Your task to perform on an android device: View the shopping cart on bestbuy. Add "corsair k70" to the cart on bestbuy Image 0: 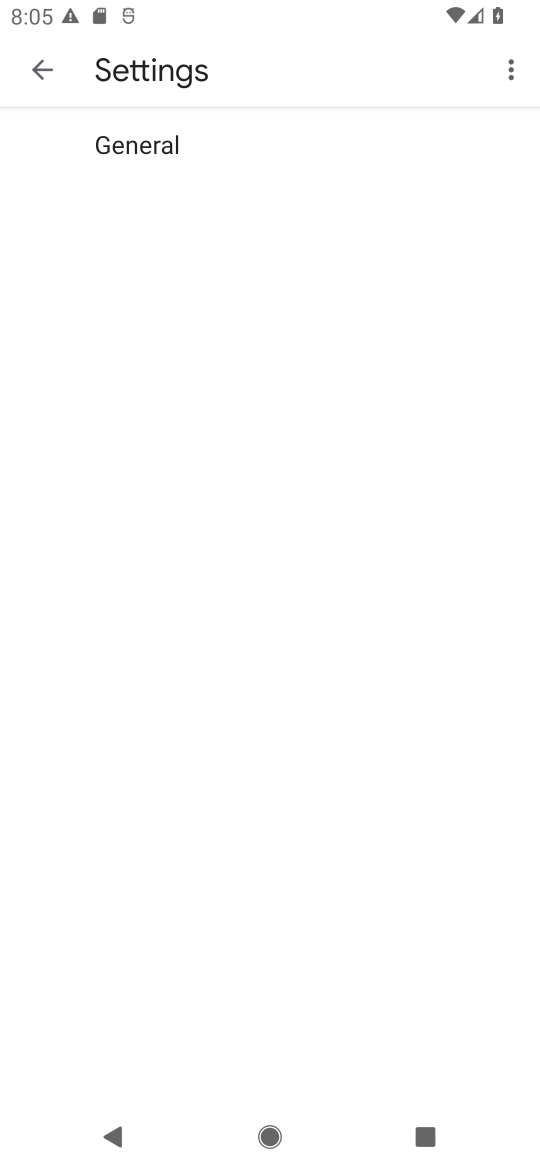
Step 0: press home button
Your task to perform on an android device: View the shopping cart on bestbuy. Add "corsair k70" to the cart on bestbuy Image 1: 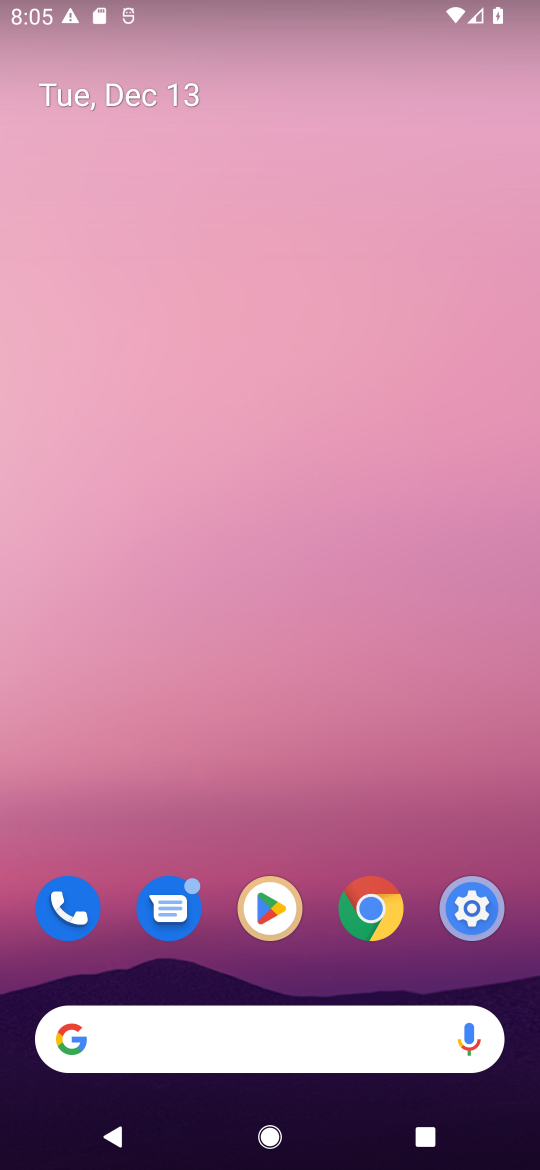
Step 1: click (117, 1044)
Your task to perform on an android device: View the shopping cart on bestbuy. Add "corsair k70" to the cart on bestbuy Image 2: 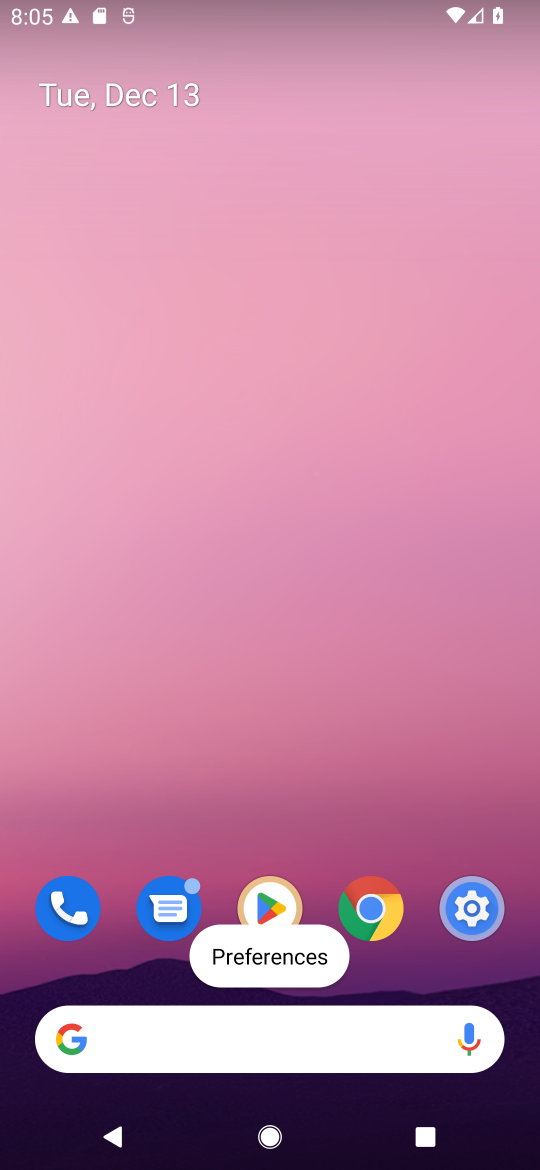
Step 2: click (115, 1029)
Your task to perform on an android device: View the shopping cart on bestbuy. Add "corsair k70" to the cart on bestbuy Image 3: 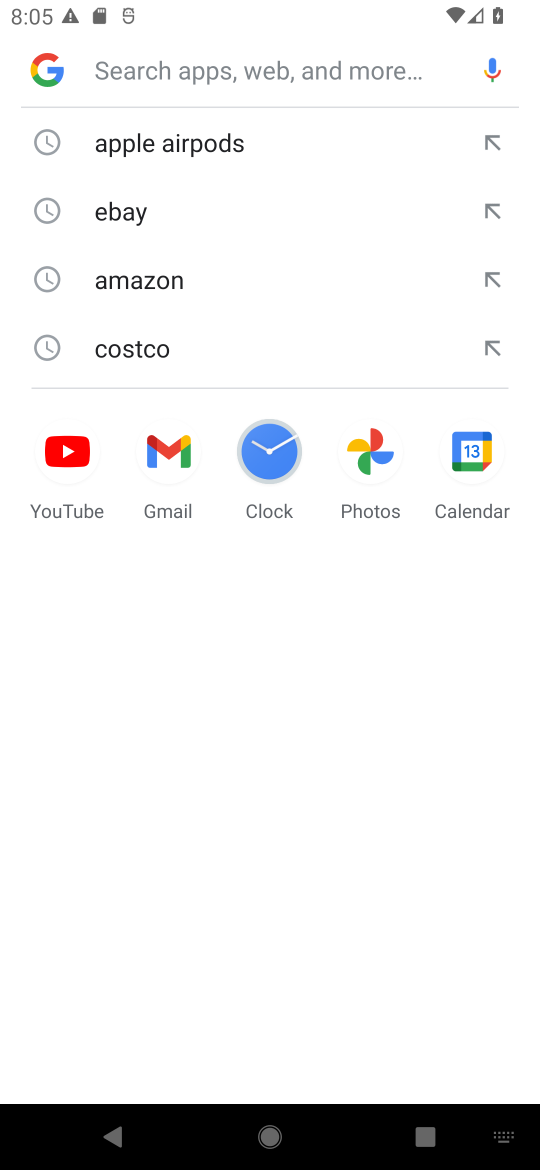
Step 3: type "bestbuy"
Your task to perform on an android device: View the shopping cart on bestbuy. Add "corsair k70" to the cart on bestbuy Image 4: 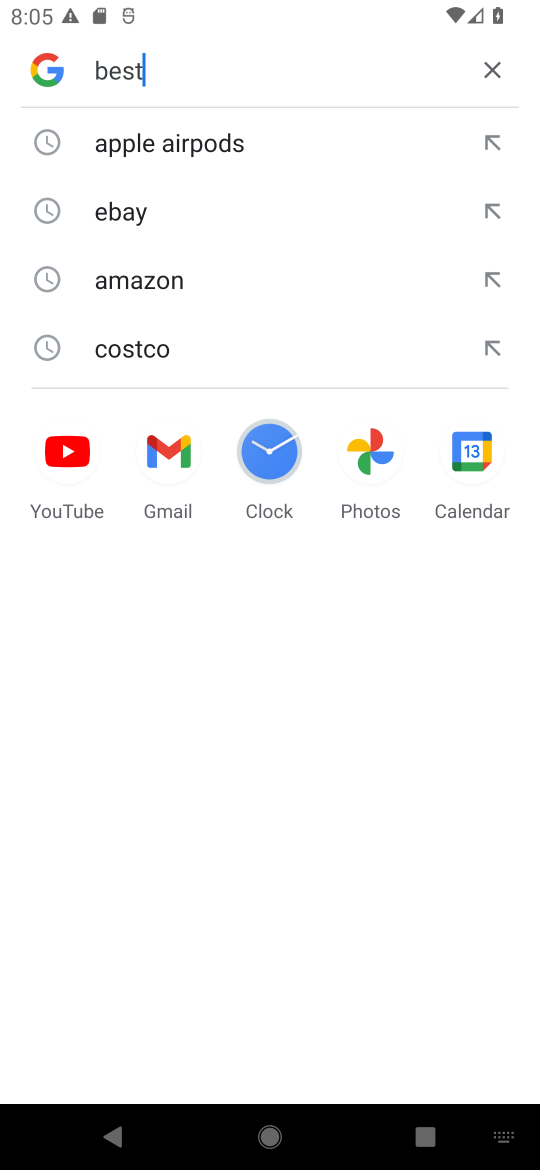
Step 4: press enter
Your task to perform on an android device: View the shopping cart on bestbuy. Add "corsair k70" to the cart on bestbuy Image 5: 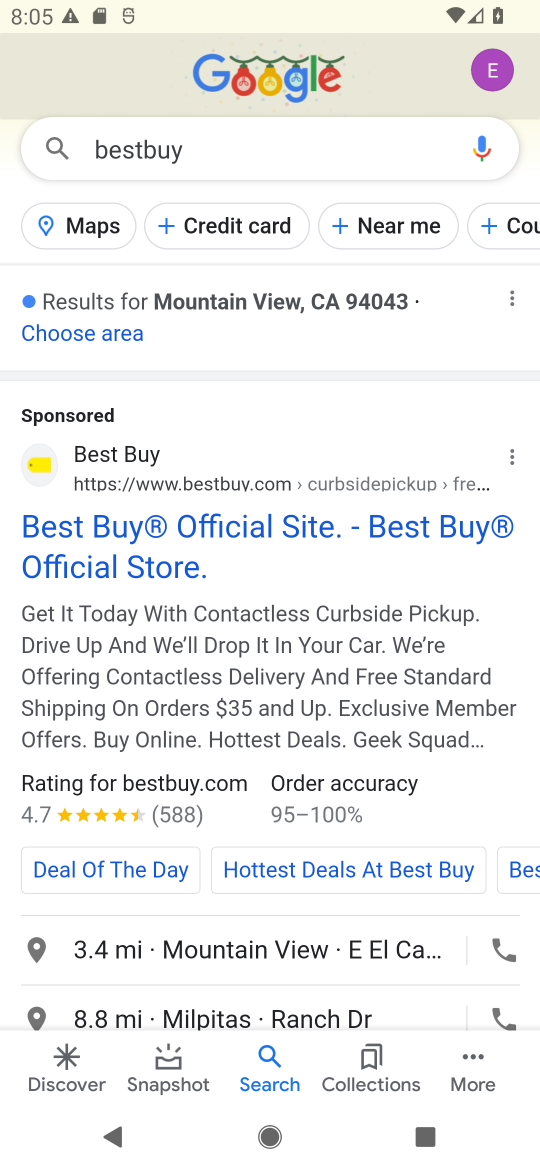
Step 5: click (97, 533)
Your task to perform on an android device: View the shopping cart on bestbuy. Add "corsair k70" to the cart on bestbuy Image 6: 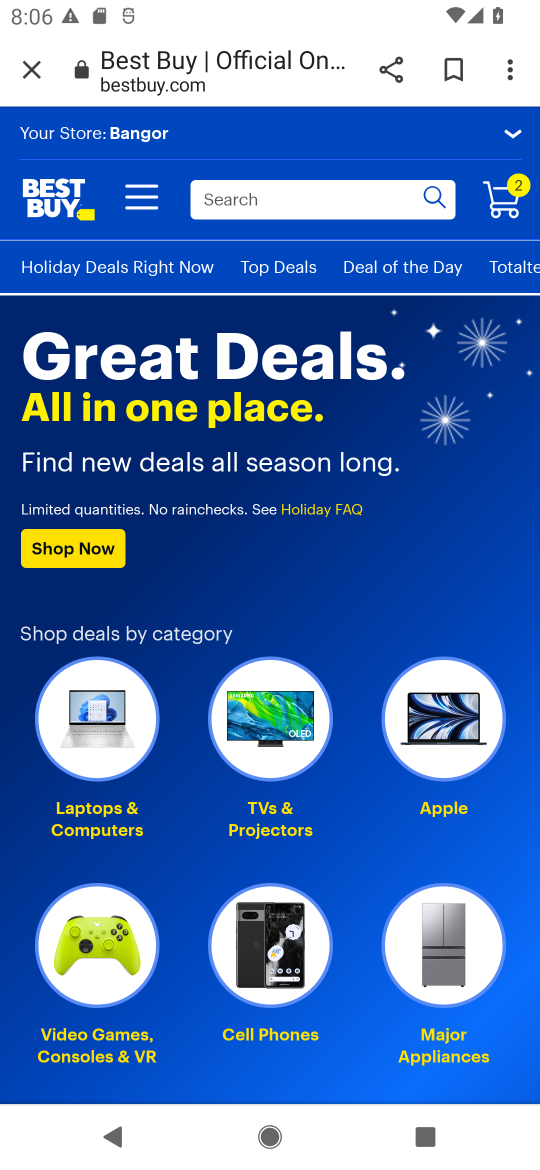
Step 6: click (501, 201)
Your task to perform on an android device: View the shopping cart on bestbuy. Add "corsair k70" to the cart on bestbuy Image 7: 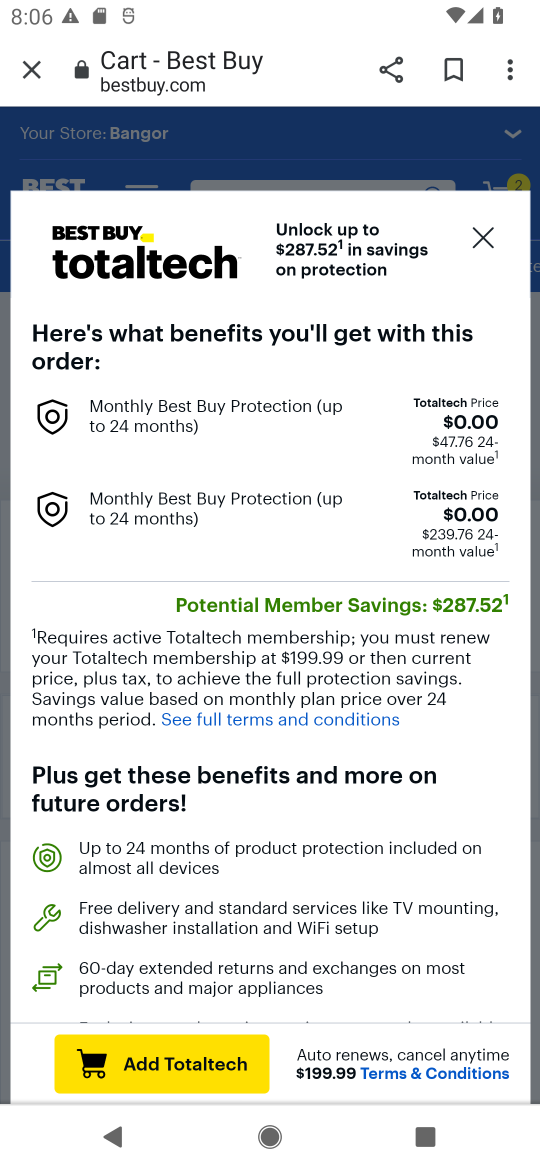
Step 7: click (485, 237)
Your task to perform on an android device: View the shopping cart on bestbuy. Add "corsair k70" to the cart on bestbuy Image 8: 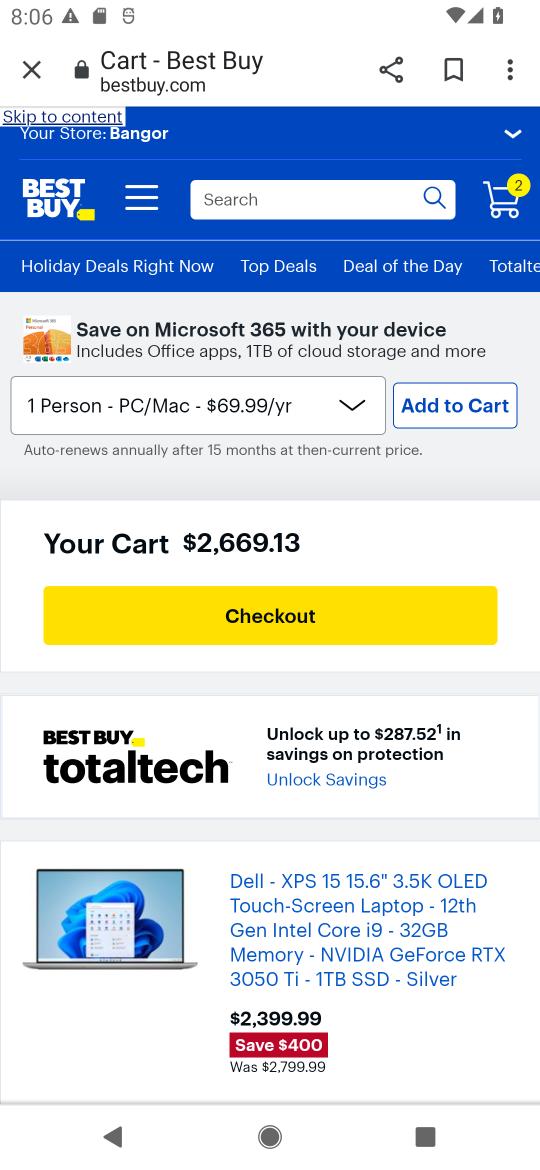
Step 8: click (252, 191)
Your task to perform on an android device: View the shopping cart on bestbuy. Add "corsair k70" to the cart on bestbuy Image 9: 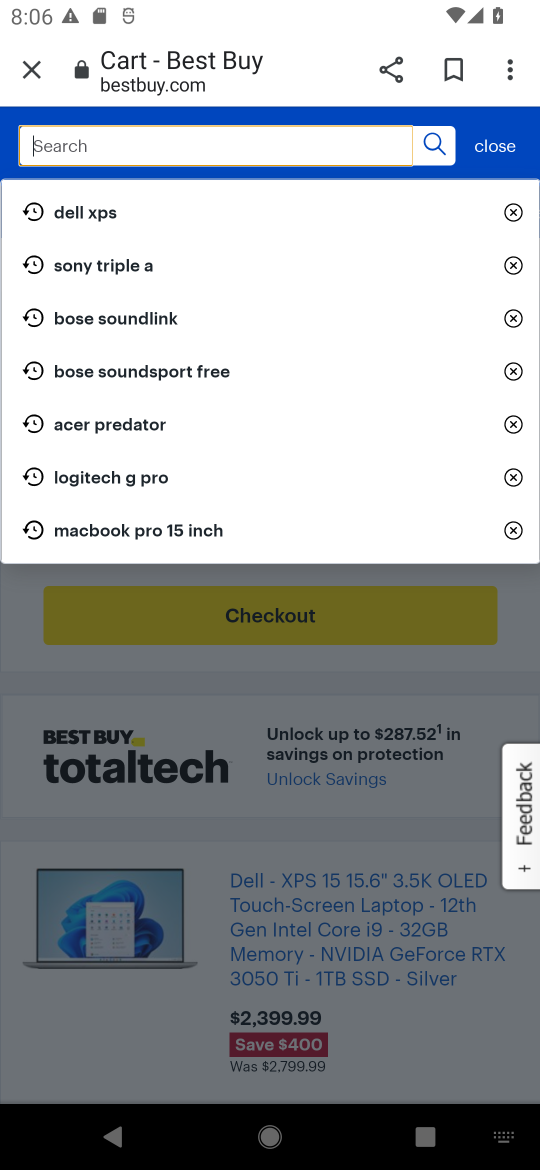
Step 9: press enter
Your task to perform on an android device: View the shopping cart on bestbuy. Add "corsair k70" to the cart on bestbuy Image 10: 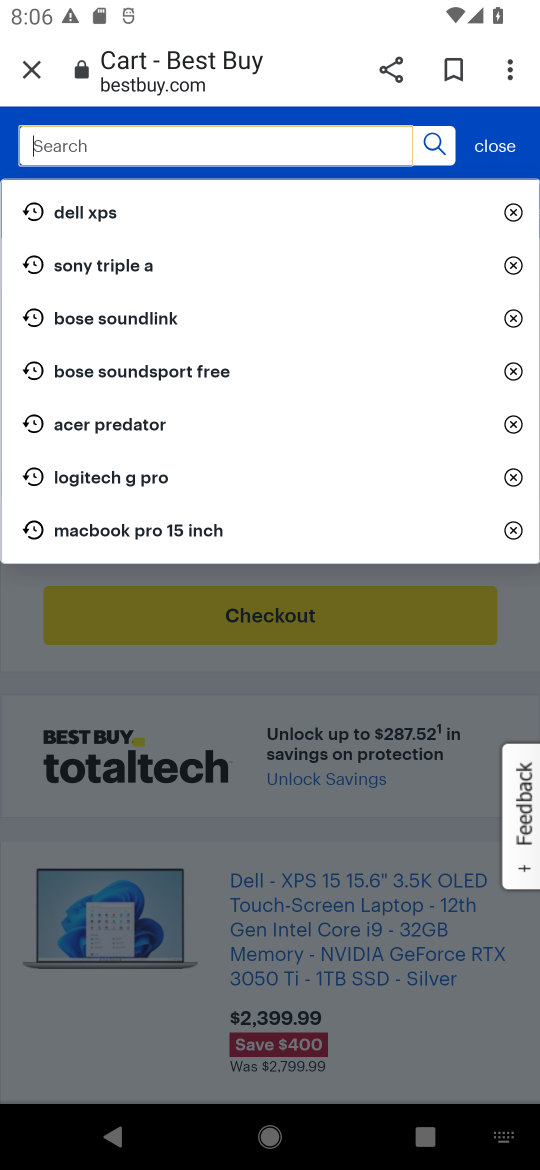
Step 10: type "corsair k70"
Your task to perform on an android device: View the shopping cart on bestbuy. Add "corsair k70" to the cart on bestbuy Image 11: 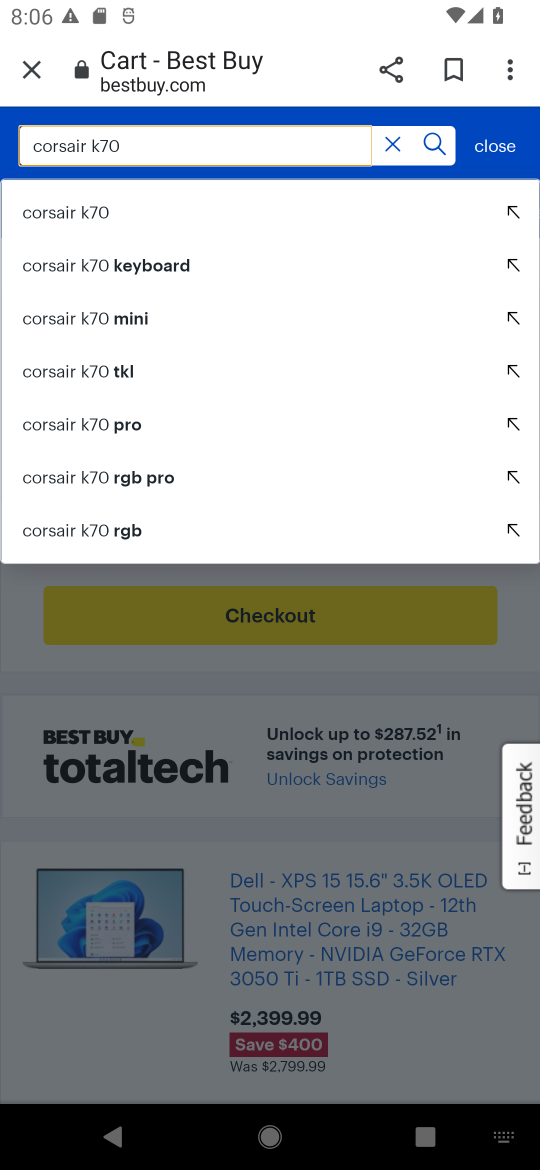
Step 11: press enter
Your task to perform on an android device: View the shopping cart on bestbuy. Add "corsair k70" to the cart on bestbuy Image 12: 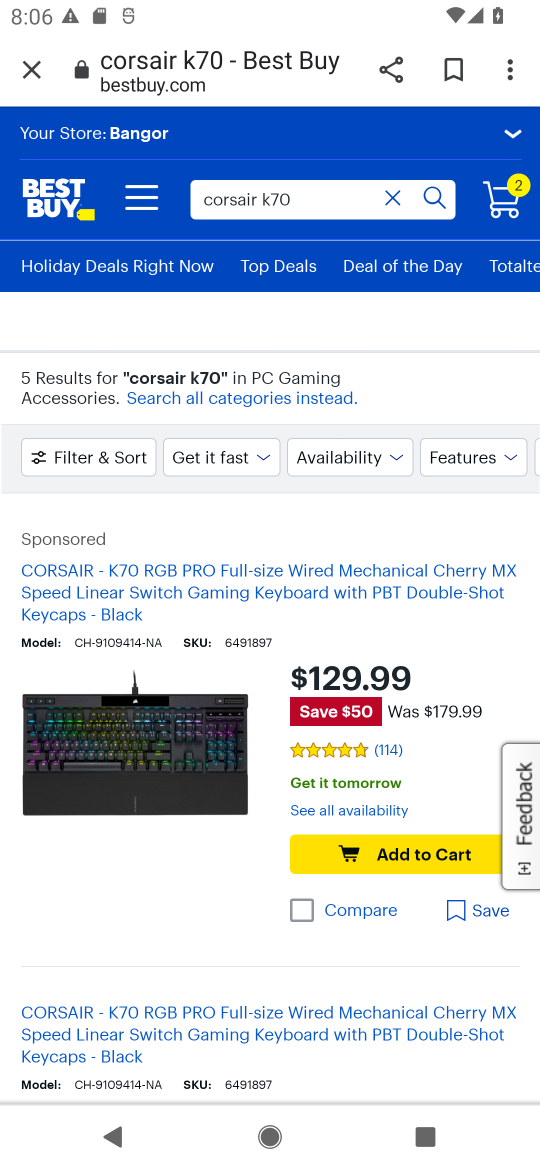
Step 12: click (383, 853)
Your task to perform on an android device: View the shopping cart on bestbuy. Add "corsair k70" to the cart on bestbuy Image 13: 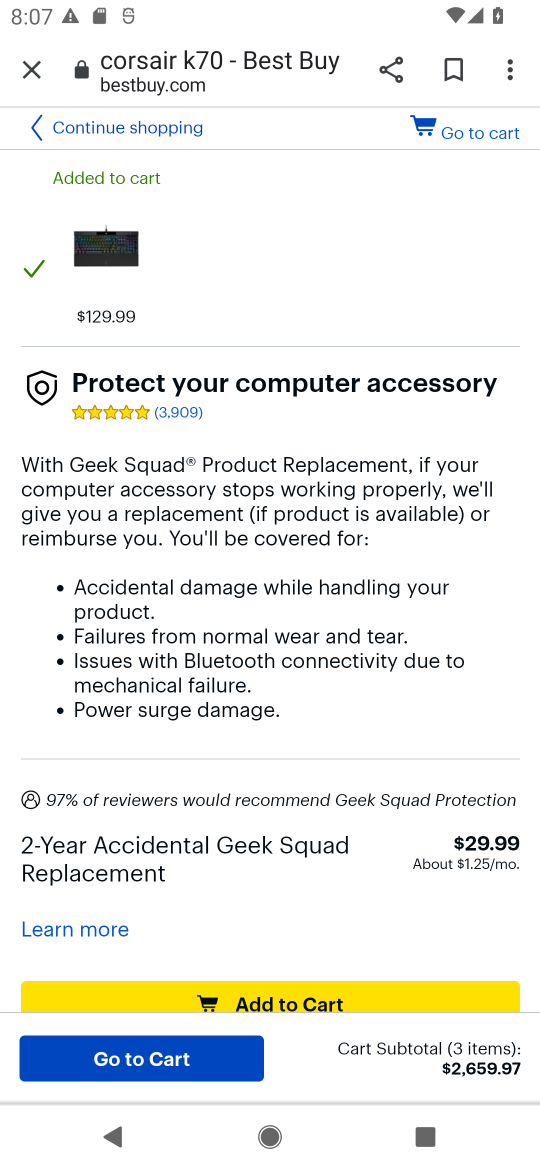
Step 13: task complete